Your task to perform on an android device: Open calendar and show me the second week of next month Image 0: 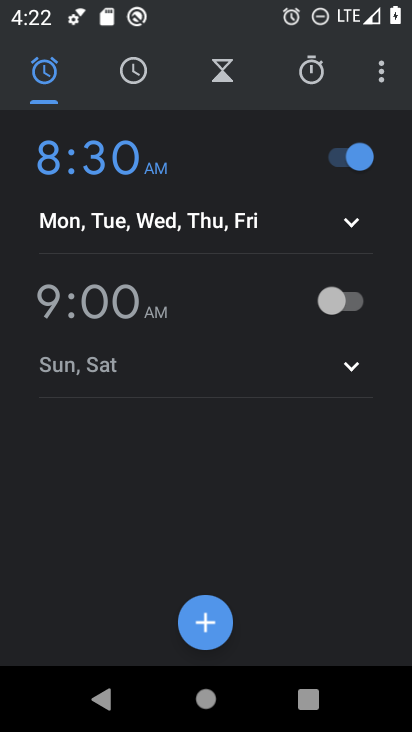
Step 0: press home button
Your task to perform on an android device: Open calendar and show me the second week of next month Image 1: 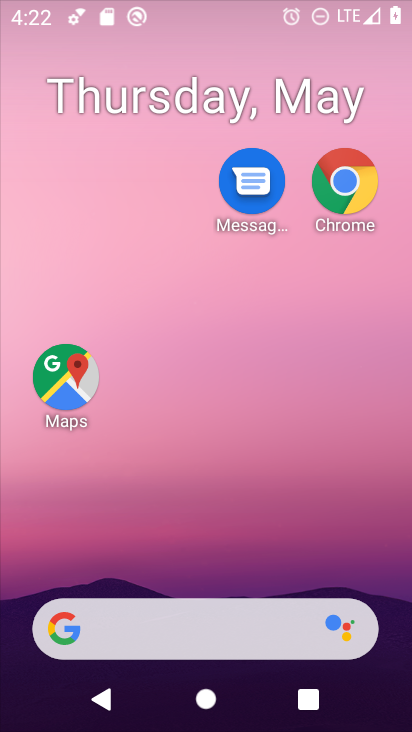
Step 1: drag from (86, 669) to (358, 12)
Your task to perform on an android device: Open calendar and show me the second week of next month Image 2: 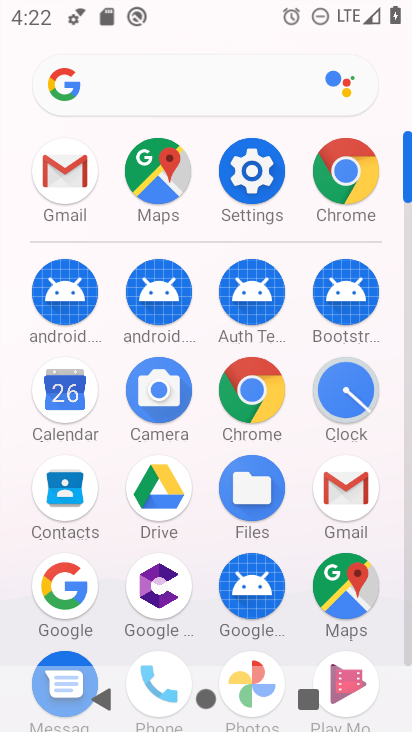
Step 2: click (67, 385)
Your task to perform on an android device: Open calendar and show me the second week of next month Image 3: 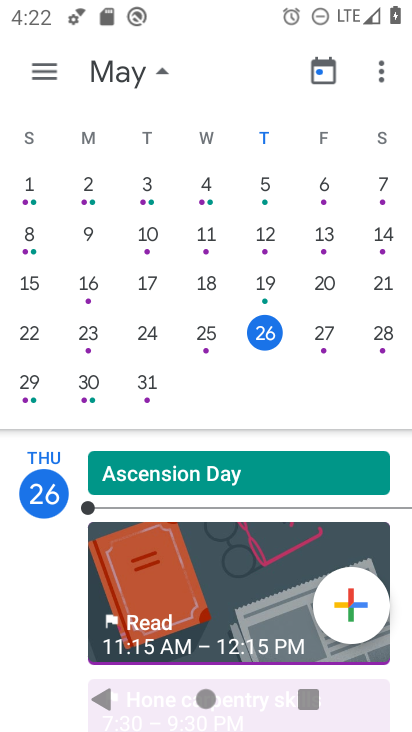
Step 3: drag from (380, 291) to (0, 294)
Your task to perform on an android device: Open calendar and show me the second week of next month Image 4: 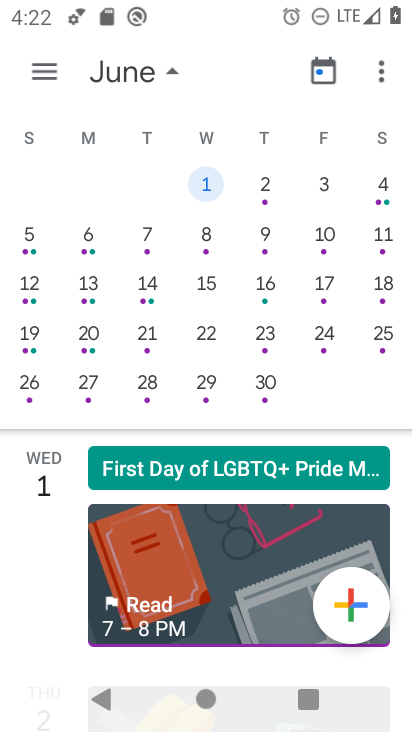
Step 4: click (270, 240)
Your task to perform on an android device: Open calendar and show me the second week of next month Image 5: 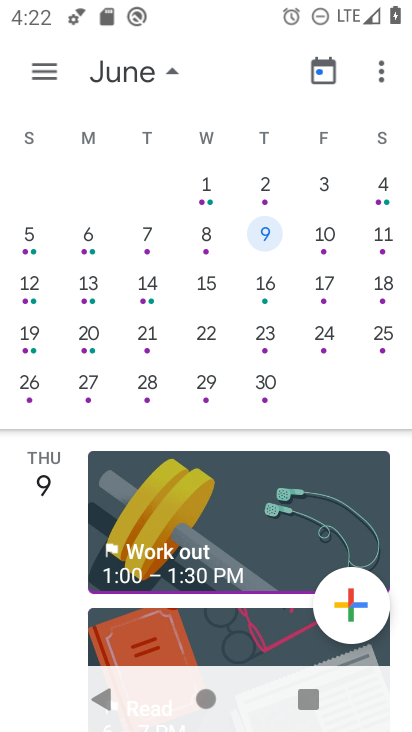
Step 5: click (47, 78)
Your task to perform on an android device: Open calendar and show me the second week of next month Image 6: 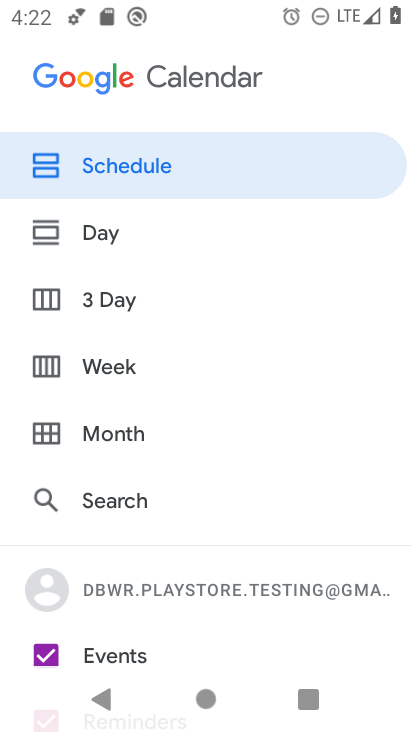
Step 6: click (107, 355)
Your task to perform on an android device: Open calendar and show me the second week of next month Image 7: 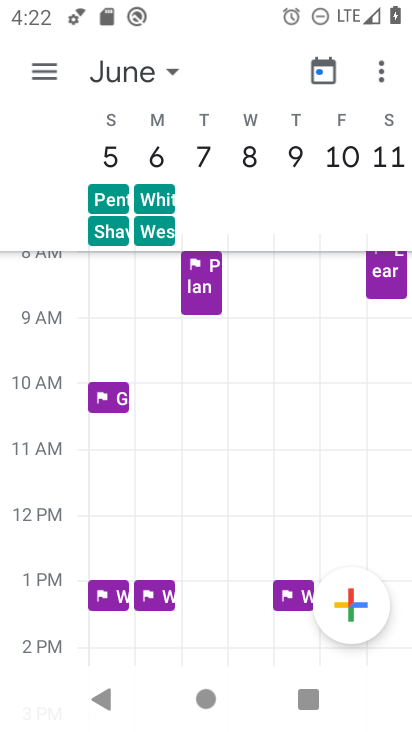
Step 7: task complete